Your task to perform on an android device: What's the weather going to be this weekend? Image 0: 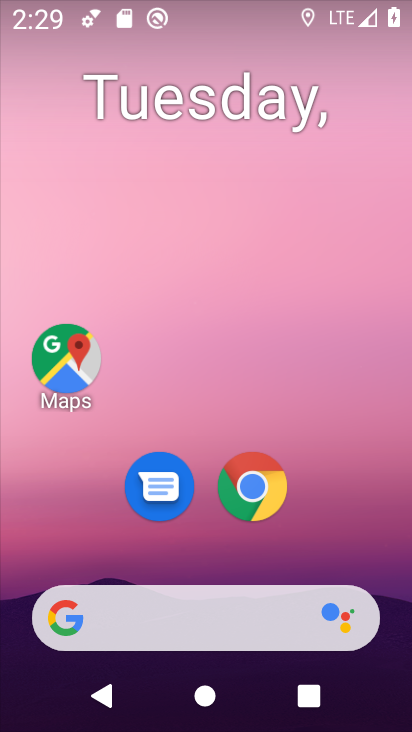
Step 0: press home button
Your task to perform on an android device: What's the weather going to be this weekend? Image 1: 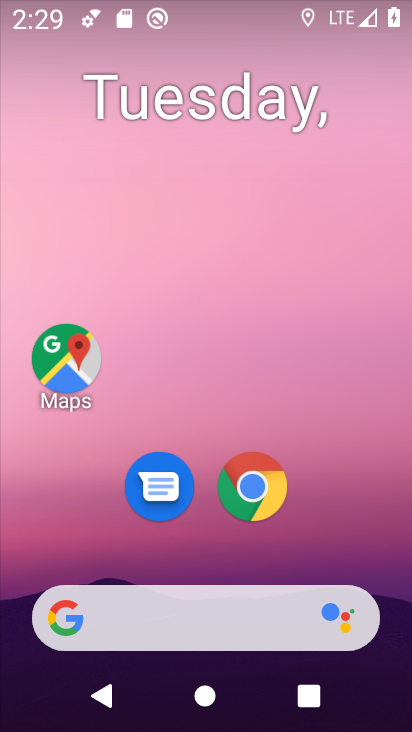
Step 1: click (266, 612)
Your task to perform on an android device: What's the weather going to be this weekend? Image 2: 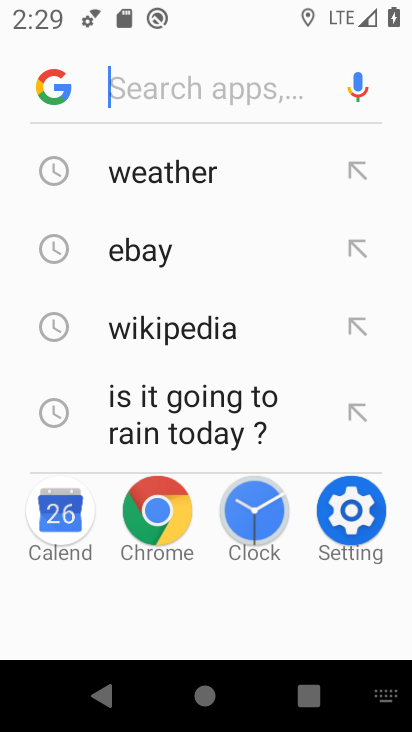
Step 2: click (187, 170)
Your task to perform on an android device: What's the weather going to be this weekend? Image 3: 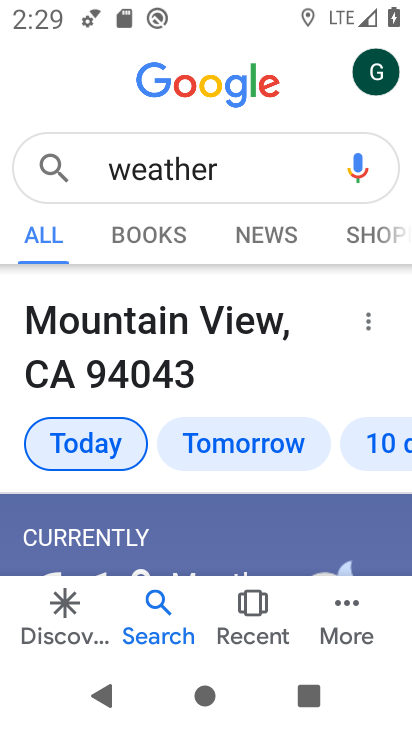
Step 3: drag from (299, 375) to (146, 364)
Your task to perform on an android device: What's the weather going to be this weekend? Image 4: 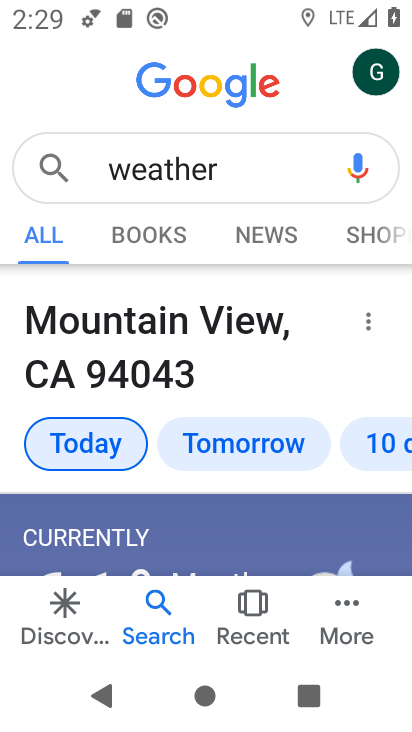
Step 4: click (374, 424)
Your task to perform on an android device: What's the weather going to be this weekend? Image 5: 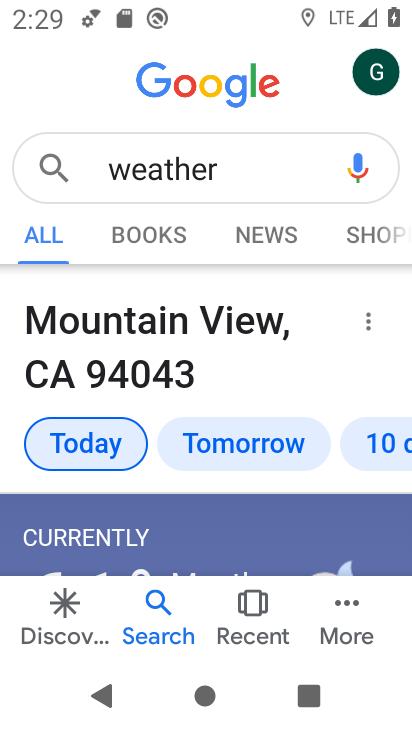
Step 5: click (380, 436)
Your task to perform on an android device: What's the weather going to be this weekend? Image 6: 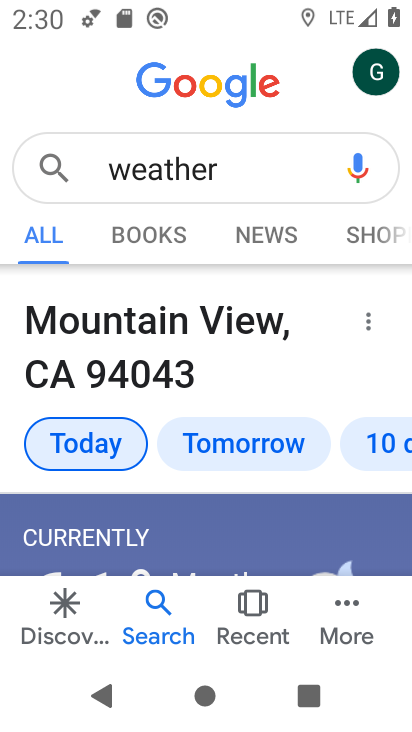
Step 6: task complete